Your task to perform on an android device: Set the phone to "Do not disturb". Image 0: 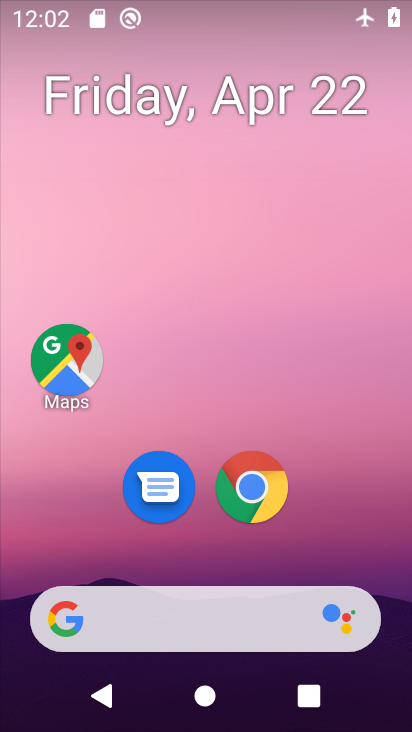
Step 0: click (321, 282)
Your task to perform on an android device: Set the phone to "Do not disturb". Image 1: 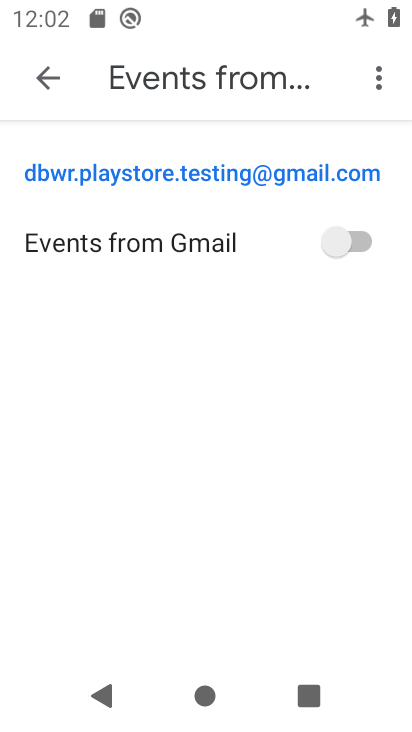
Step 1: press home button
Your task to perform on an android device: Set the phone to "Do not disturb". Image 2: 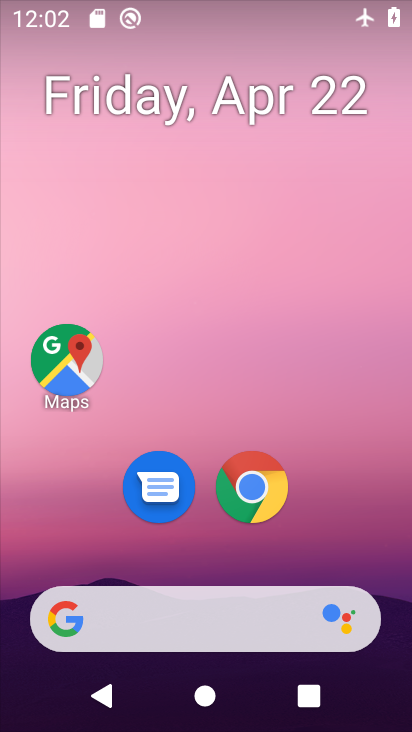
Step 2: drag from (342, 567) to (355, 273)
Your task to perform on an android device: Set the phone to "Do not disturb". Image 3: 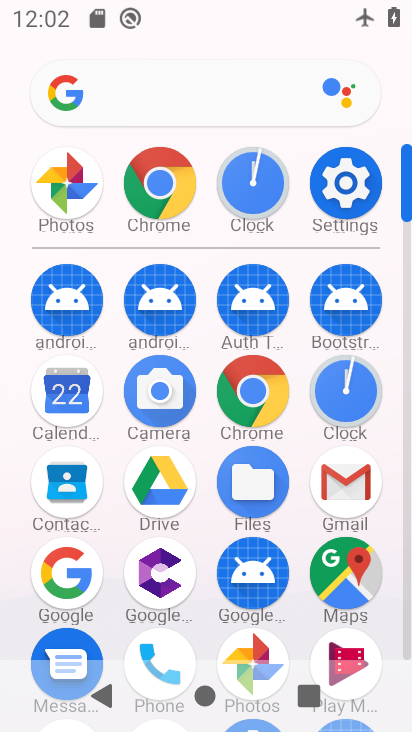
Step 3: drag from (154, 24) to (126, 561)
Your task to perform on an android device: Set the phone to "Do not disturb". Image 4: 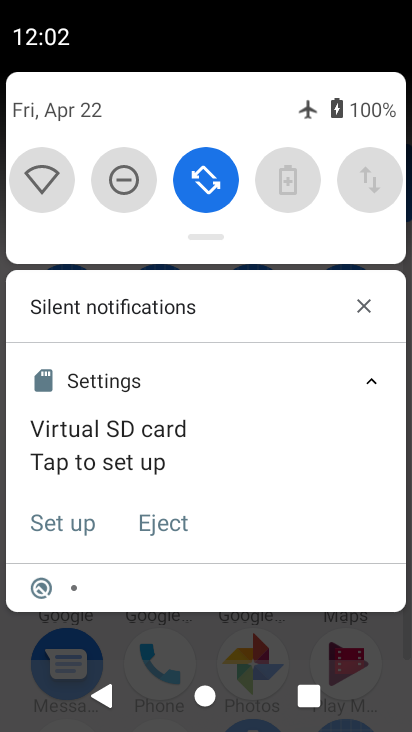
Step 4: click (125, 178)
Your task to perform on an android device: Set the phone to "Do not disturb". Image 5: 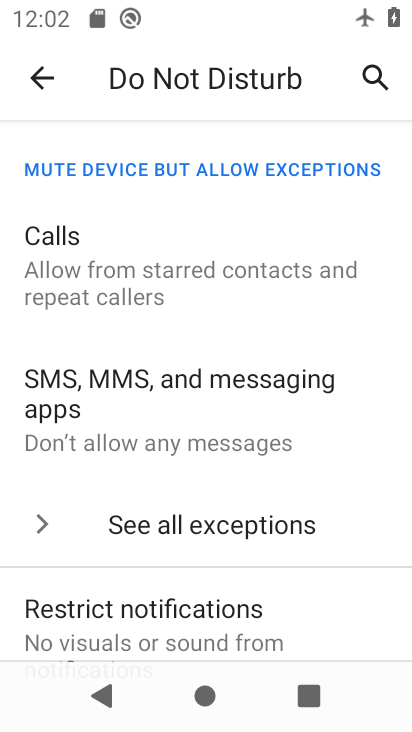
Step 5: drag from (222, 568) to (250, 101)
Your task to perform on an android device: Set the phone to "Do not disturb". Image 6: 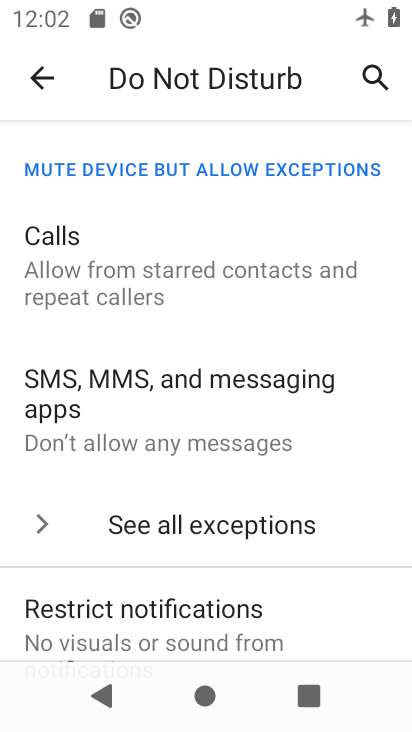
Step 6: drag from (160, 583) to (210, 136)
Your task to perform on an android device: Set the phone to "Do not disturb". Image 7: 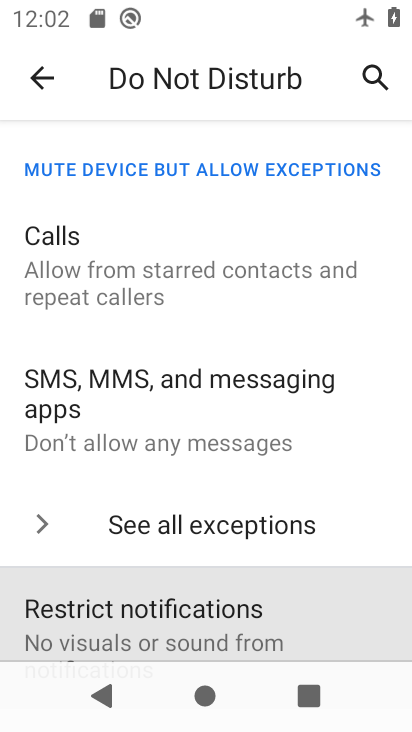
Step 7: drag from (196, 654) to (240, 304)
Your task to perform on an android device: Set the phone to "Do not disturb". Image 8: 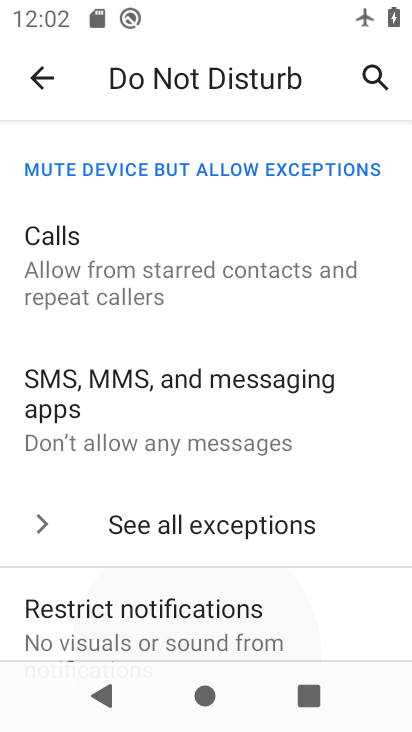
Step 8: drag from (224, 471) to (279, 261)
Your task to perform on an android device: Set the phone to "Do not disturb". Image 9: 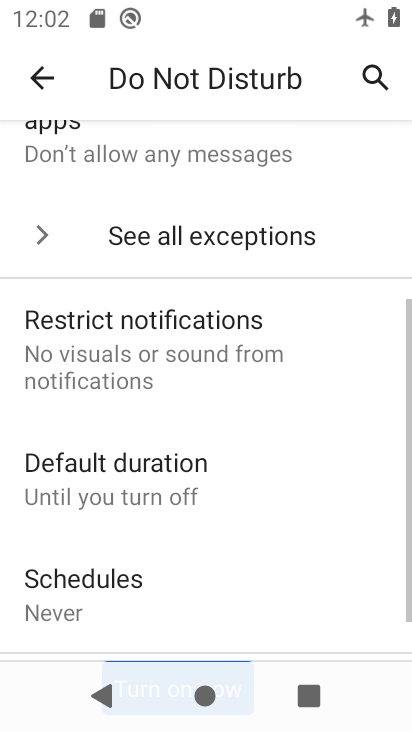
Step 9: drag from (211, 497) to (245, 189)
Your task to perform on an android device: Set the phone to "Do not disturb". Image 10: 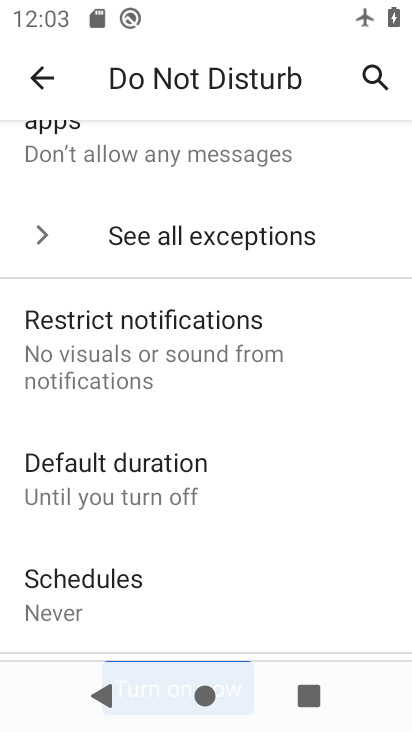
Step 10: drag from (223, 605) to (252, 240)
Your task to perform on an android device: Set the phone to "Do not disturb". Image 11: 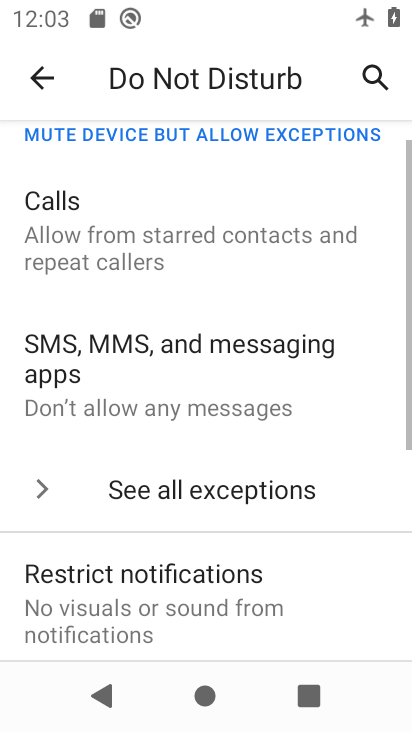
Step 11: drag from (195, 524) to (229, 295)
Your task to perform on an android device: Set the phone to "Do not disturb". Image 12: 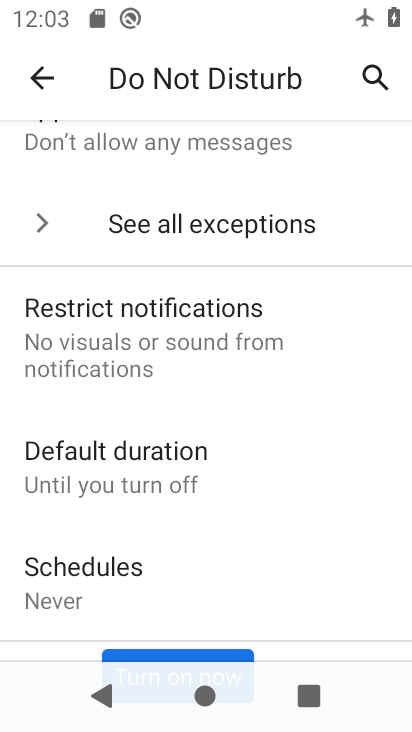
Step 12: drag from (203, 565) to (273, 283)
Your task to perform on an android device: Set the phone to "Do not disturb". Image 13: 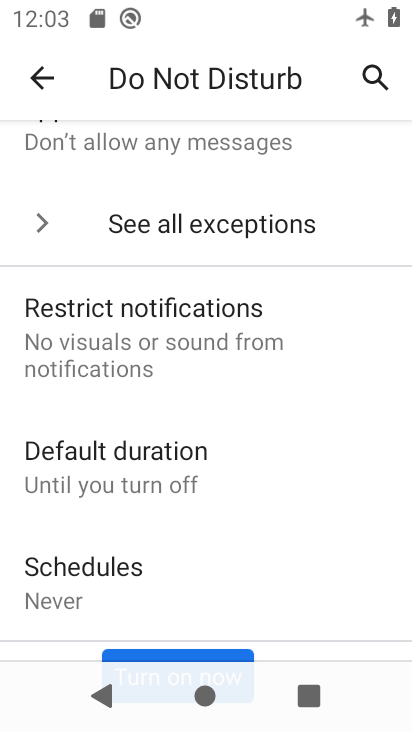
Step 13: drag from (261, 588) to (246, 244)
Your task to perform on an android device: Set the phone to "Do not disturb". Image 14: 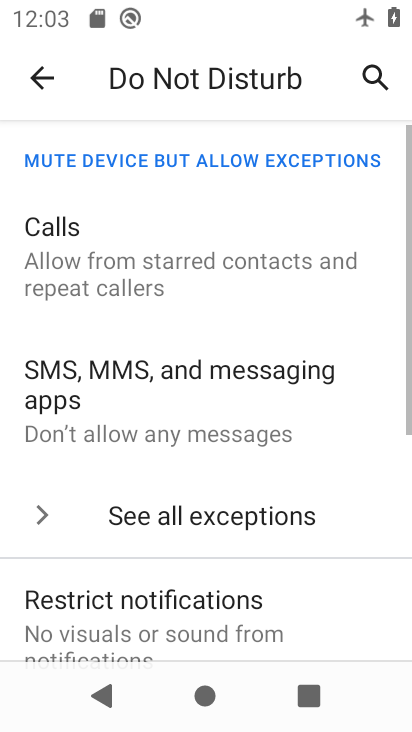
Step 14: drag from (207, 587) to (243, 160)
Your task to perform on an android device: Set the phone to "Do not disturb". Image 15: 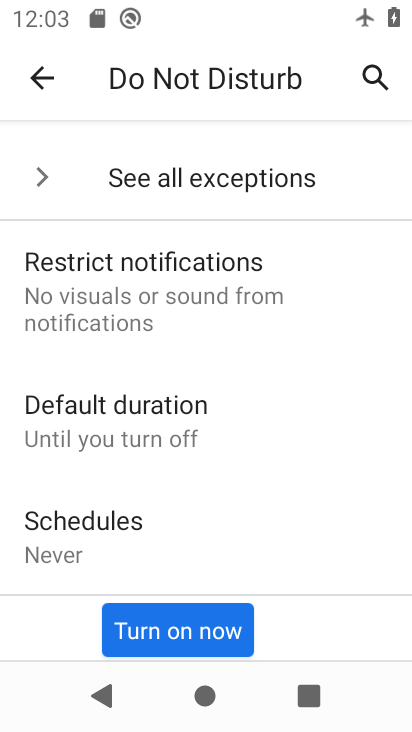
Step 15: click (187, 638)
Your task to perform on an android device: Set the phone to "Do not disturb". Image 16: 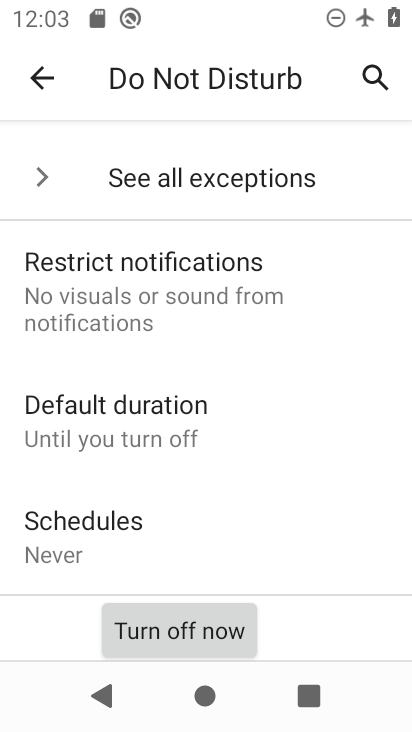
Step 16: task complete